Your task to perform on an android device: Open Amazon Image 0: 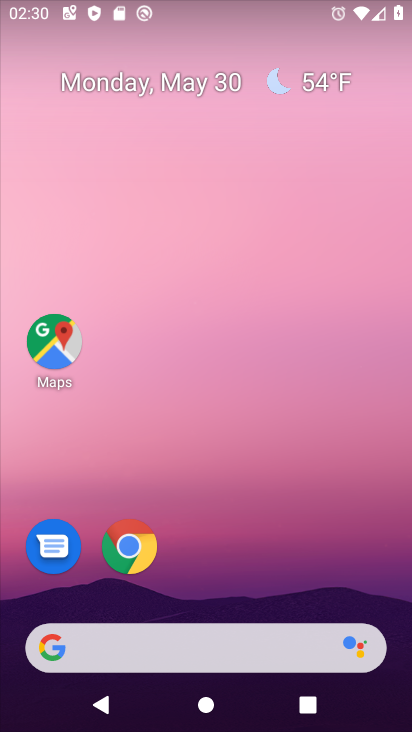
Step 0: click (130, 545)
Your task to perform on an android device: Open Amazon Image 1: 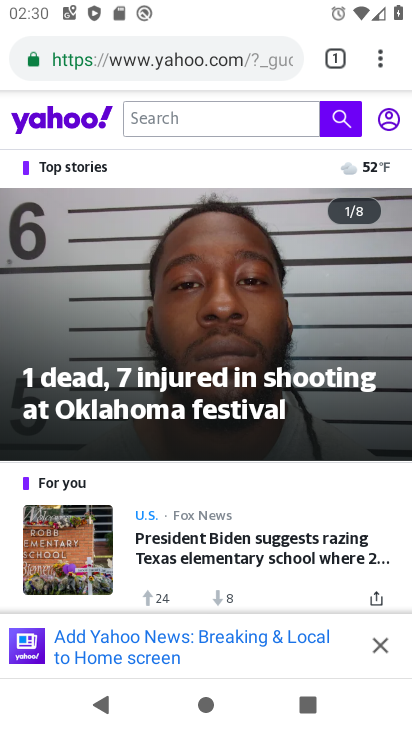
Step 1: click (381, 651)
Your task to perform on an android device: Open Amazon Image 2: 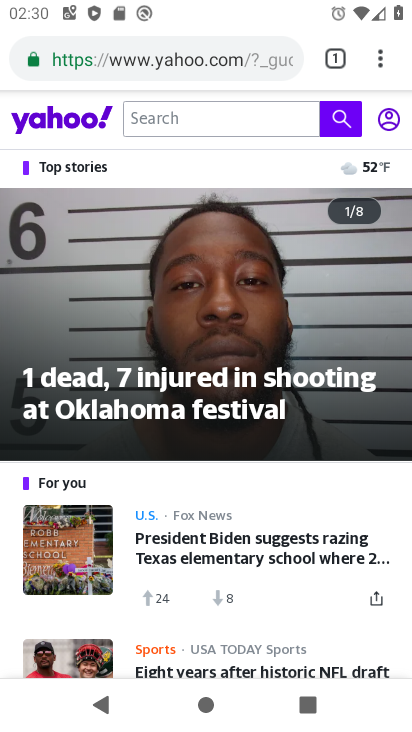
Step 2: click (338, 43)
Your task to perform on an android device: Open Amazon Image 3: 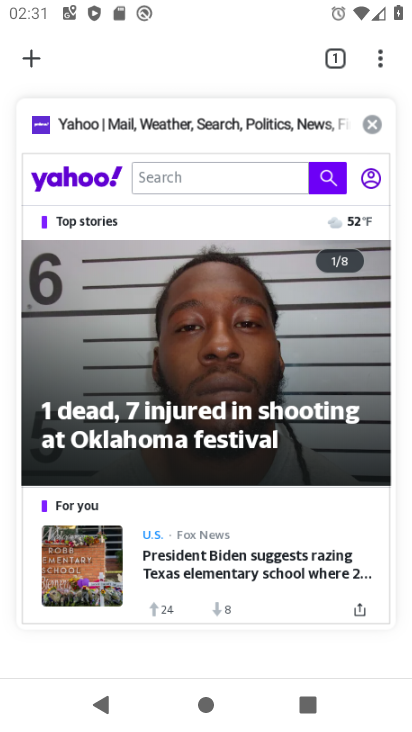
Step 3: click (371, 124)
Your task to perform on an android device: Open Amazon Image 4: 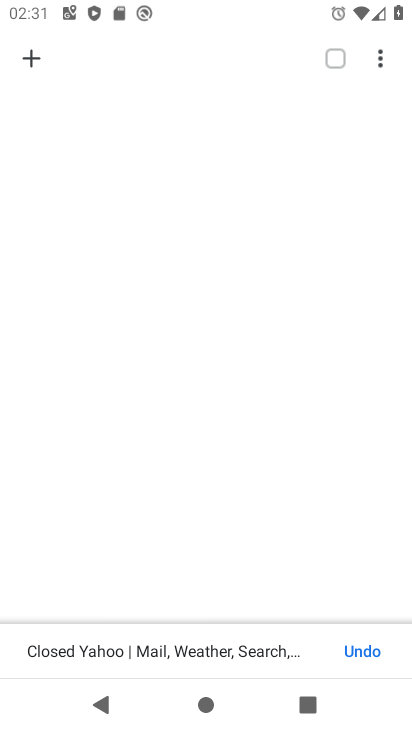
Step 4: click (35, 52)
Your task to perform on an android device: Open Amazon Image 5: 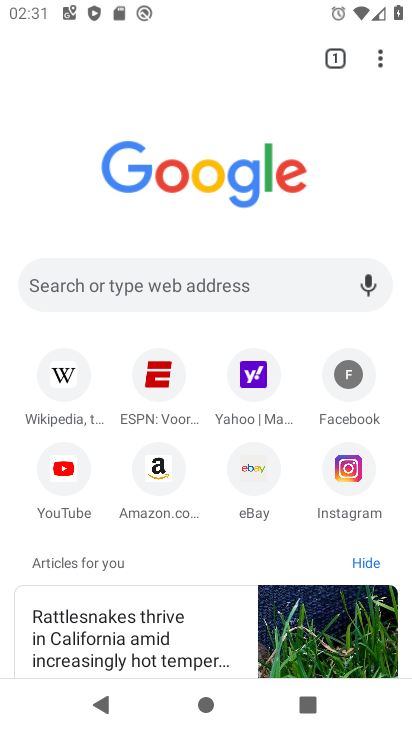
Step 5: click (159, 458)
Your task to perform on an android device: Open Amazon Image 6: 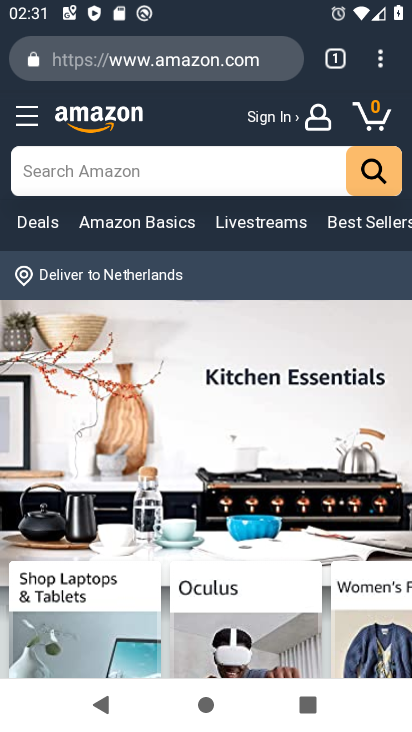
Step 6: click (231, 555)
Your task to perform on an android device: Open Amazon Image 7: 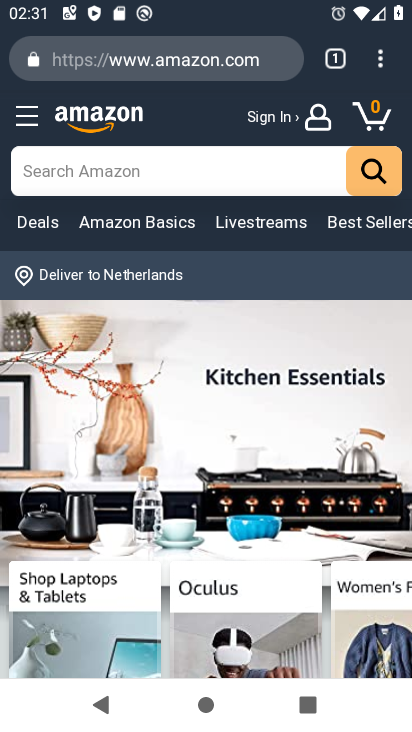
Step 7: task complete